Your task to perform on an android device: empty trash in google photos Image 0: 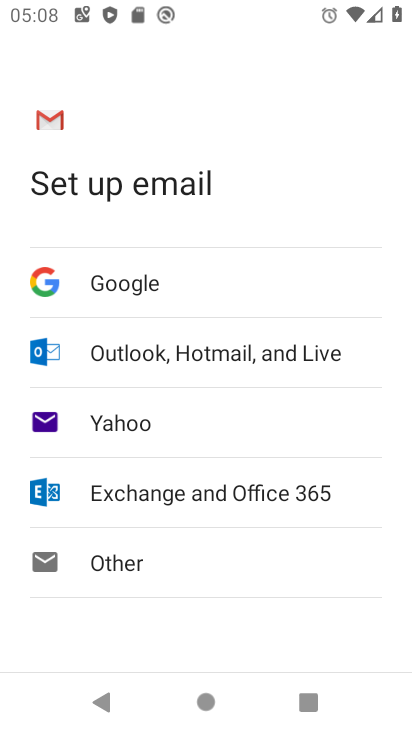
Step 0: press home button
Your task to perform on an android device: empty trash in google photos Image 1: 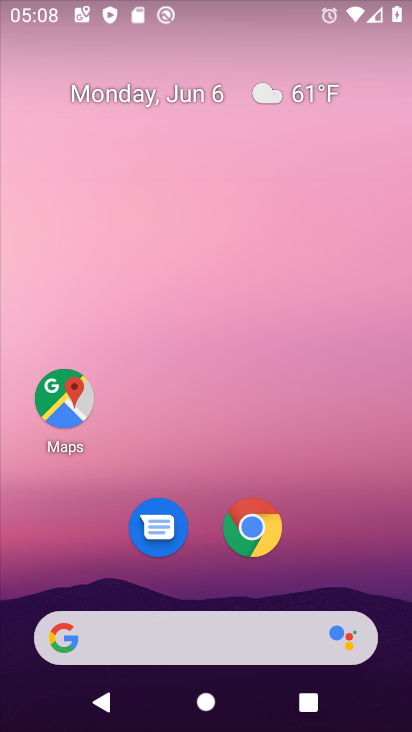
Step 1: drag from (382, 690) to (277, 191)
Your task to perform on an android device: empty trash in google photos Image 2: 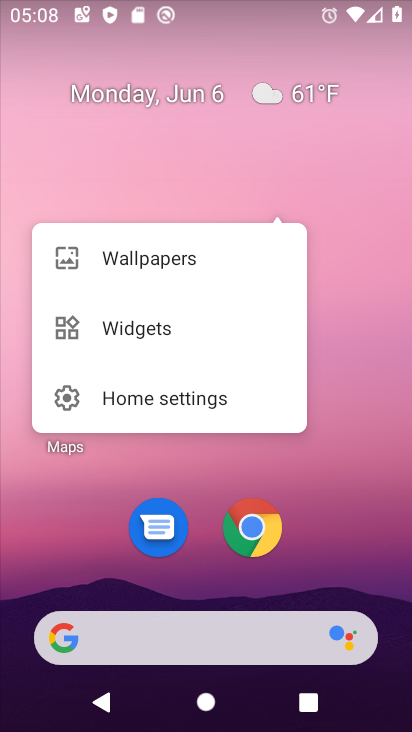
Step 2: drag from (390, 698) to (377, 94)
Your task to perform on an android device: empty trash in google photos Image 3: 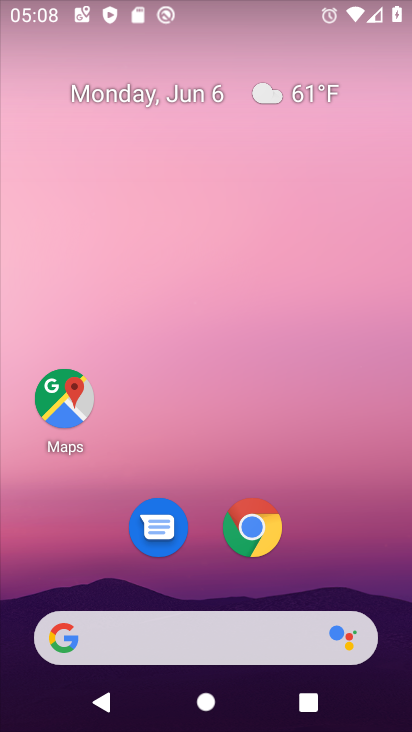
Step 3: drag from (404, 693) to (405, 204)
Your task to perform on an android device: empty trash in google photos Image 4: 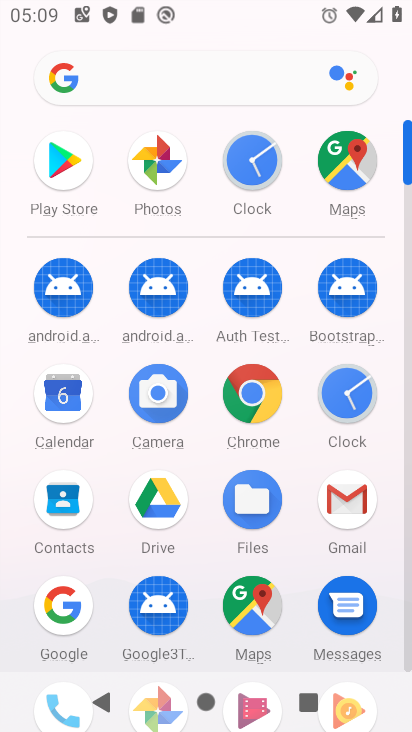
Step 4: drag from (210, 627) to (187, 346)
Your task to perform on an android device: empty trash in google photos Image 5: 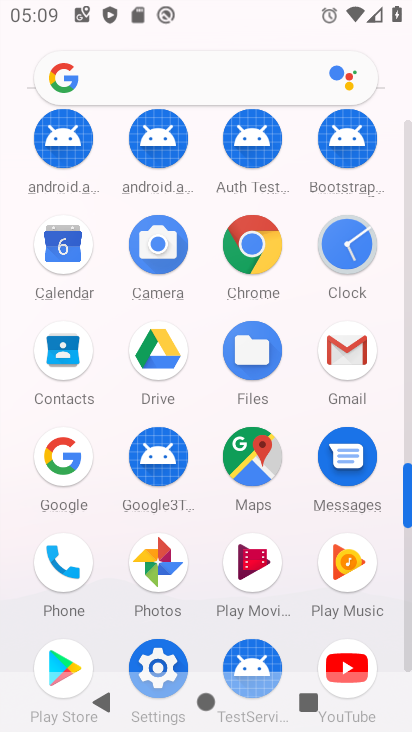
Step 5: click (160, 561)
Your task to perform on an android device: empty trash in google photos Image 6: 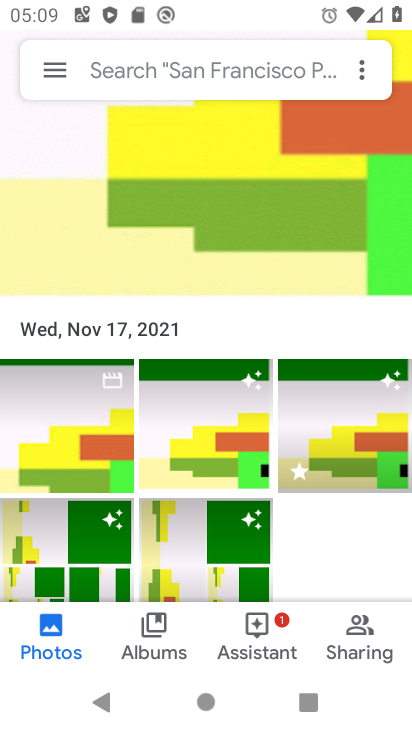
Step 6: click (46, 69)
Your task to perform on an android device: empty trash in google photos Image 7: 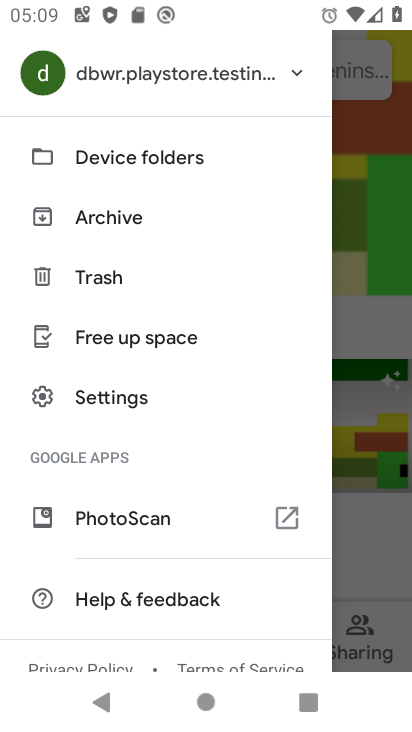
Step 7: click (105, 279)
Your task to perform on an android device: empty trash in google photos Image 8: 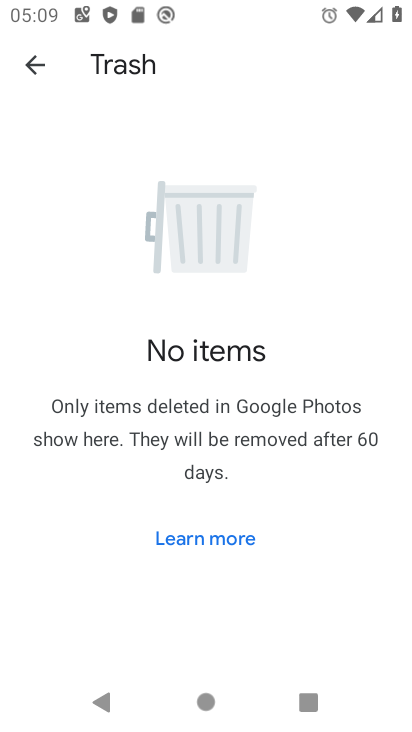
Step 8: task complete